Your task to perform on an android device: Open eBay Image 0: 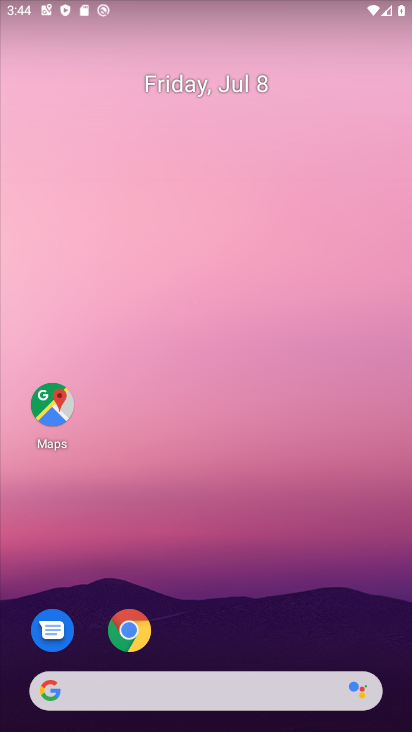
Step 0: click (123, 637)
Your task to perform on an android device: Open eBay Image 1: 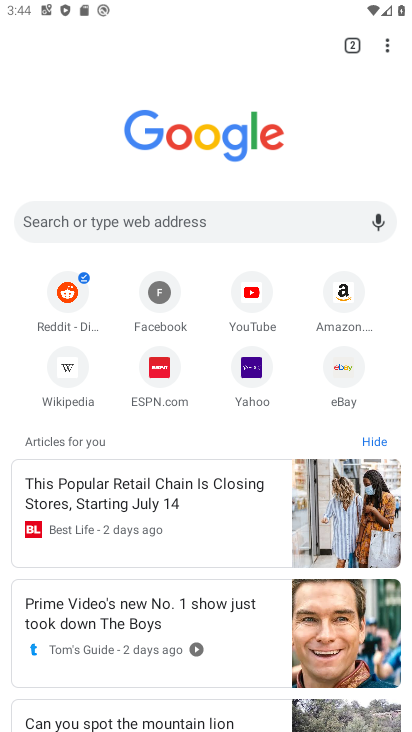
Step 1: click (346, 367)
Your task to perform on an android device: Open eBay Image 2: 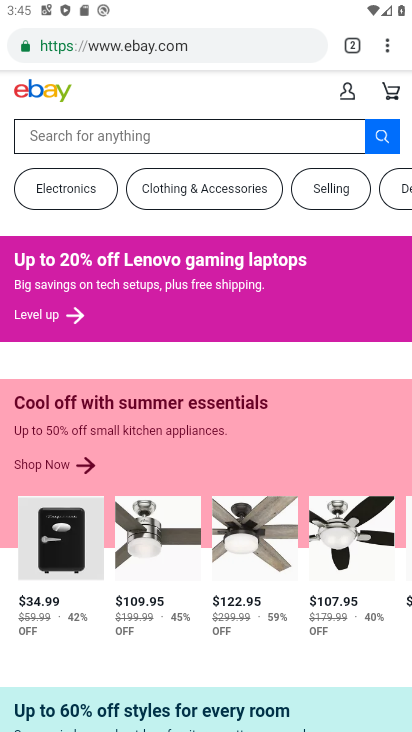
Step 2: task complete